Your task to perform on an android device: Go to Reddit.com Image 0: 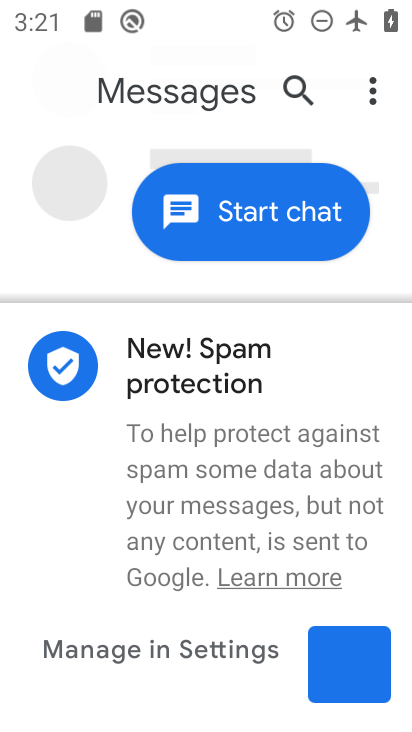
Step 0: press home button
Your task to perform on an android device: Go to Reddit.com Image 1: 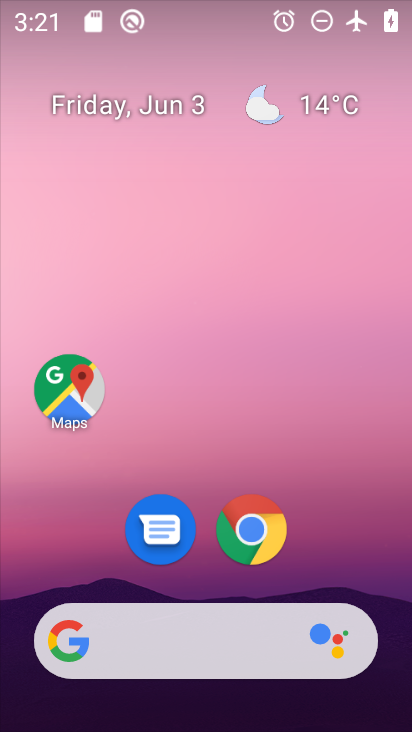
Step 1: drag from (356, 576) to (365, 113)
Your task to perform on an android device: Go to Reddit.com Image 2: 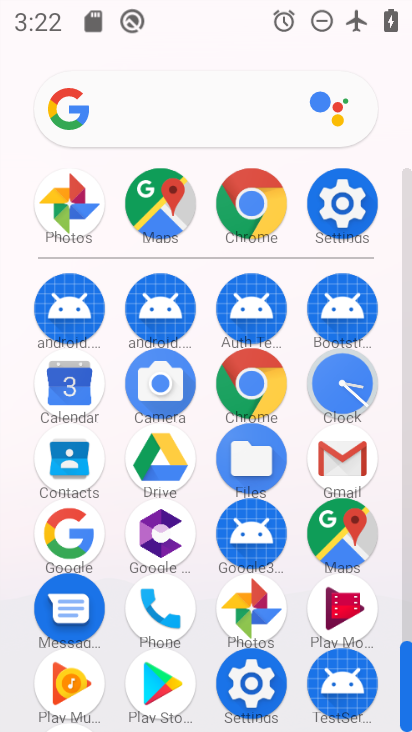
Step 2: click (227, 402)
Your task to perform on an android device: Go to Reddit.com Image 3: 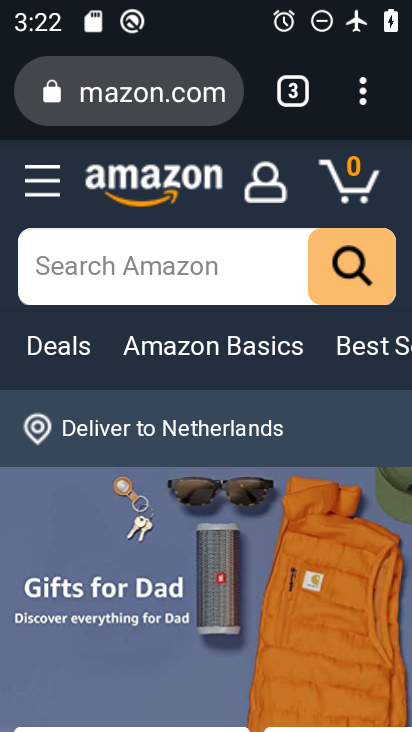
Step 3: click (193, 103)
Your task to perform on an android device: Go to Reddit.com Image 4: 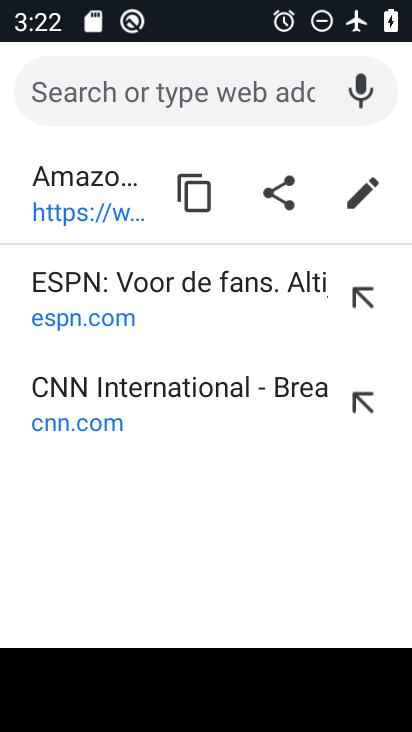
Step 4: type "reddit.com"
Your task to perform on an android device: Go to Reddit.com Image 5: 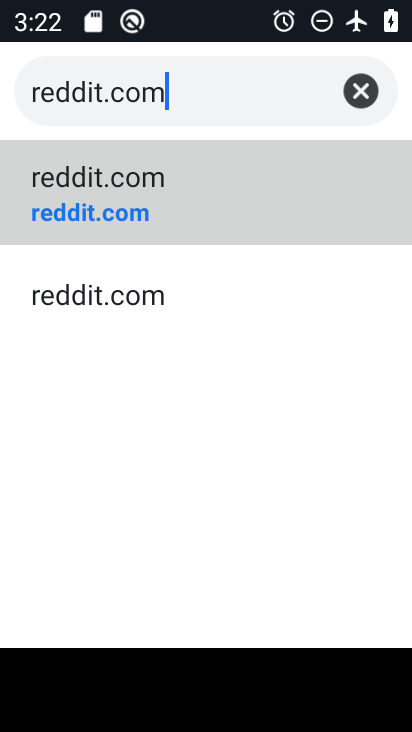
Step 5: click (164, 227)
Your task to perform on an android device: Go to Reddit.com Image 6: 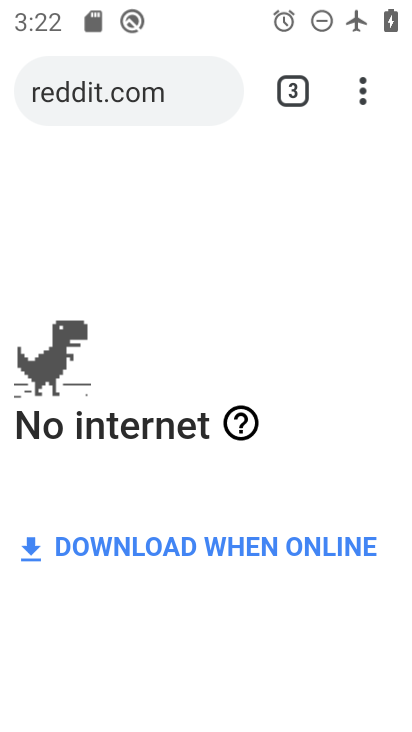
Step 6: task complete